Your task to perform on an android device: Go to battery settings Image 0: 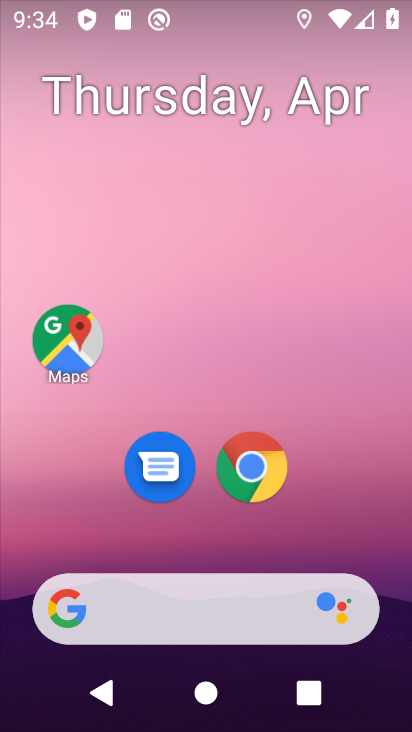
Step 0: drag from (346, 512) to (302, 104)
Your task to perform on an android device: Go to battery settings Image 1: 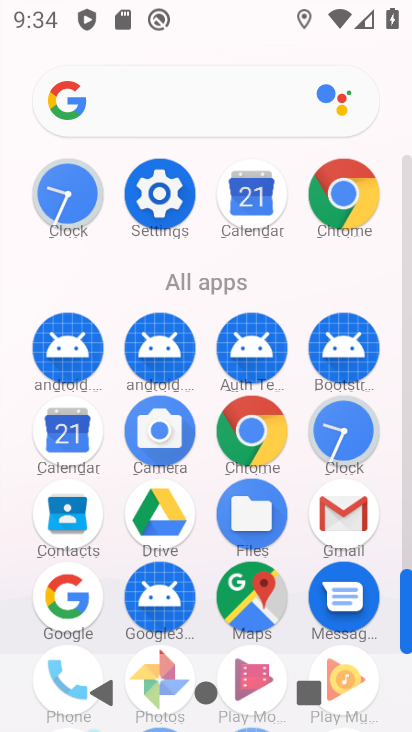
Step 1: click (158, 164)
Your task to perform on an android device: Go to battery settings Image 2: 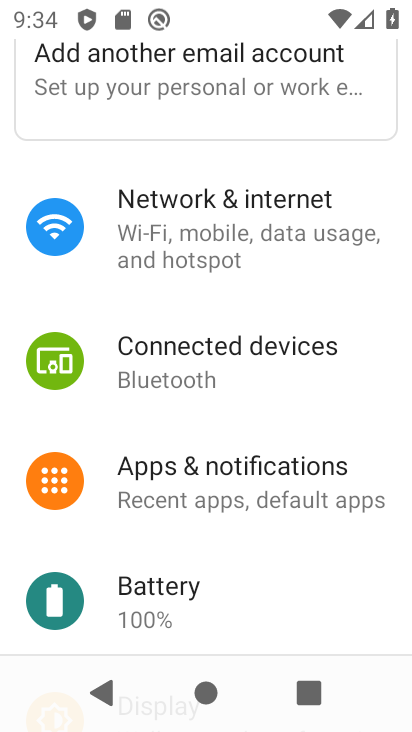
Step 2: click (191, 596)
Your task to perform on an android device: Go to battery settings Image 3: 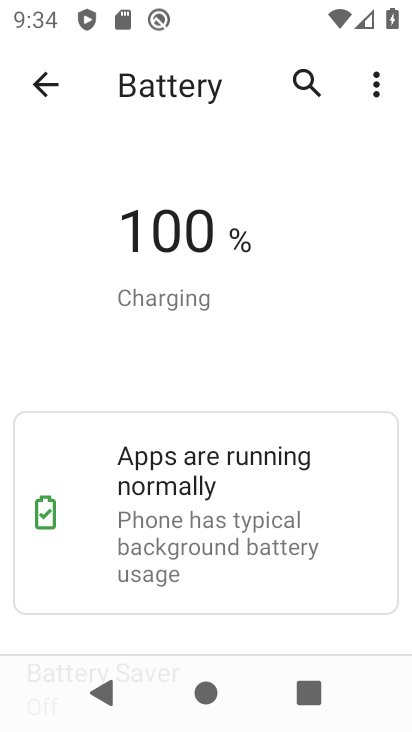
Step 3: task complete